Your task to perform on an android device: turn on the 12-hour format for clock Image 0: 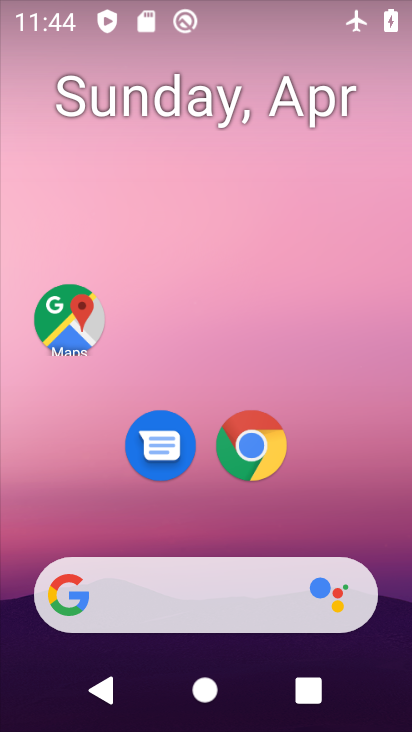
Step 0: drag from (293, 474) to (234, 17)
Your task to perform on an android device: turn on the 12-hour format for clock Image 1: 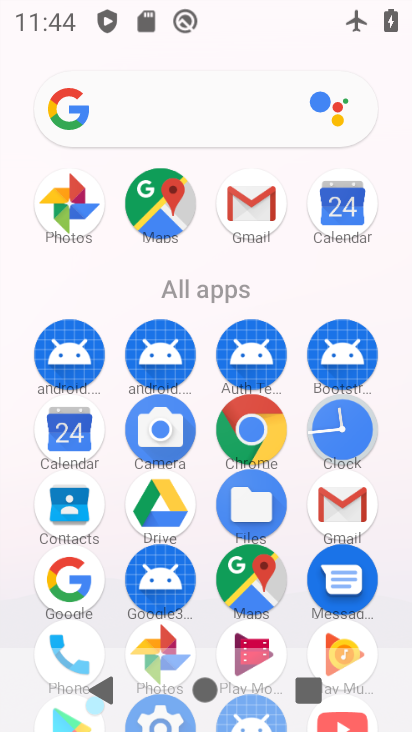
Step 1: click (355, 432)
Your task to perform on an android device: turn on the 12-hour format for clock Image 2: 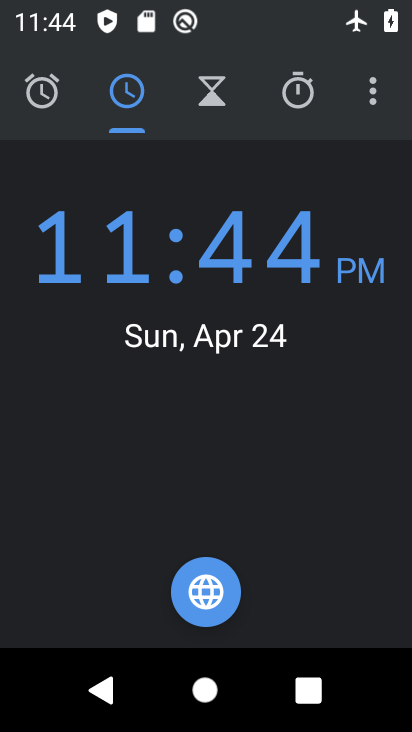
Step 2: click (377, 107)
Your task to perform on an android device: turn on the 12-hour format for clock Image 3: 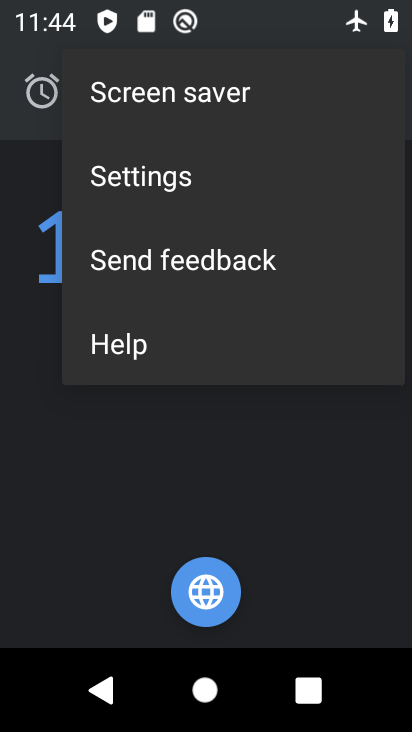
Step 3: click (156, 176)
Your task to perform on an android device: turn on the 12-hour format for clock Image 4: 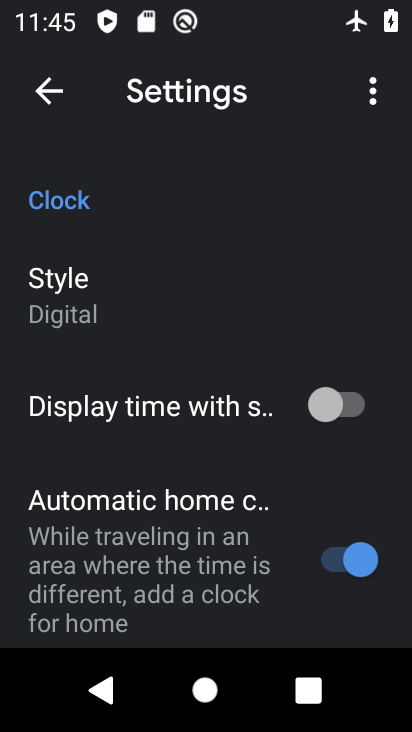
Step 4: drag from (232, 563) to (165, 193)
Your task to perform on an android device: turn on the 12-hour format for clock Image 5: 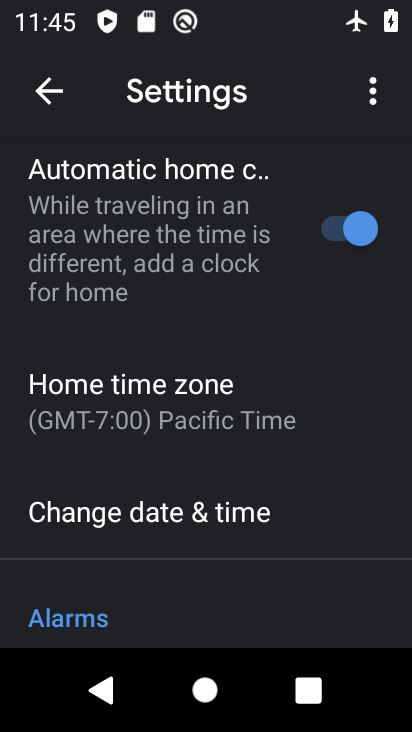
Step 5: click (191, 520)
Your task to perform on an android device: turn on the 12-hour format for clock Image 6: 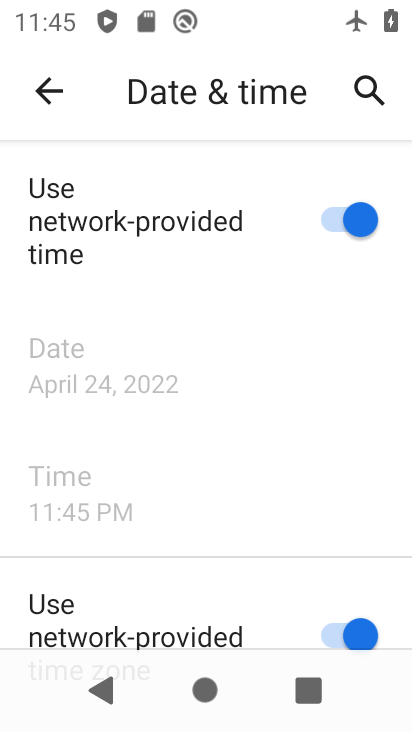
Step 6: task complete